Your task to perform on an android device: Open the web browser Image 0: 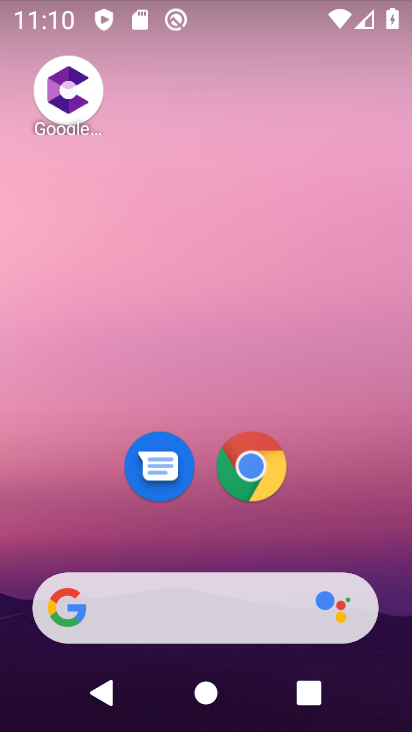
Step 0: click (240, 461)
Your task to perform on an android device: Open the web browser Image 1: 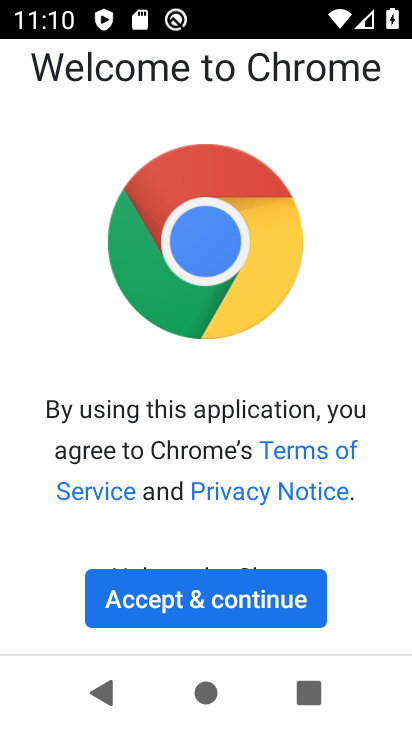
Step 1: click (264, 583)
Your task to perform on an android device: Open the web browser Image 2: 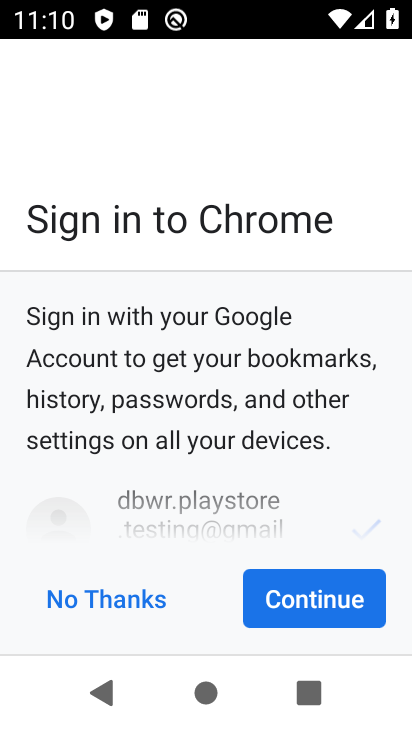
Step 2: click (298, 605)
Your task to perform on an android device: Open the web browser Image 3: 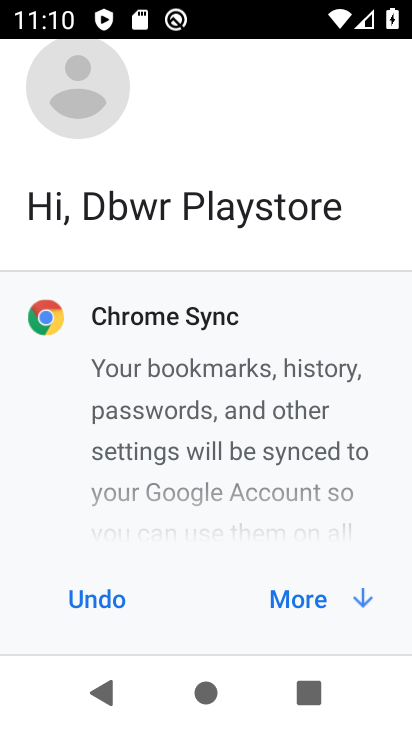
Step 3: click (300, 609)
Your task to perform on an android device: Open the web browser Image 4: 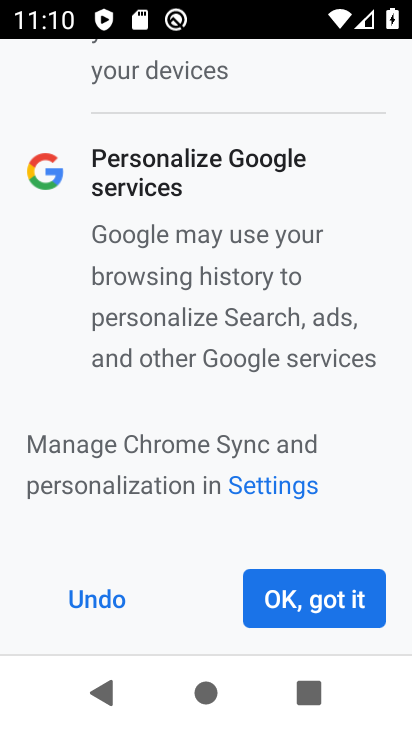
Step 4: click (302, 613)
Your task to perform on an android device: Open the web browser Image 5: 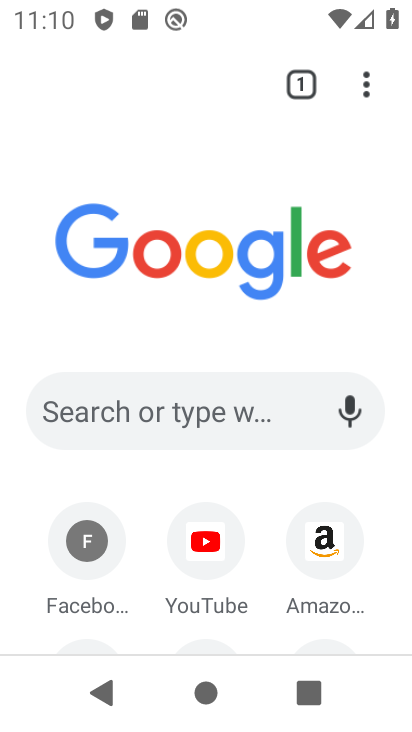
Step 5: task complete